Your task to perform on an android device: Turn on the flashlight Image 0: 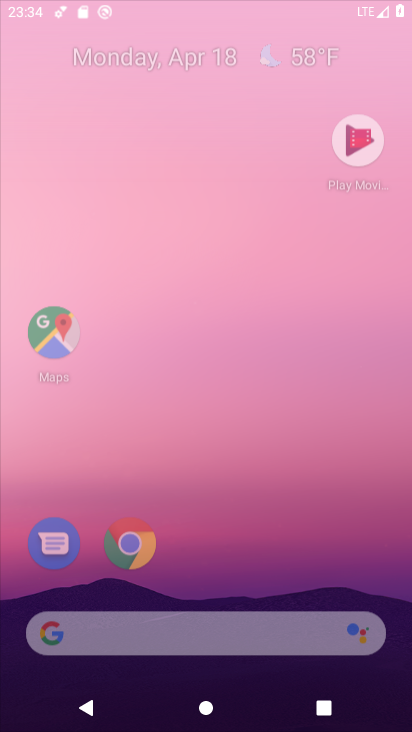
Step 0: drag from (240, 88) to (303, 1)
Your task to perform on an android device: Turn on the flashlight Image 1: 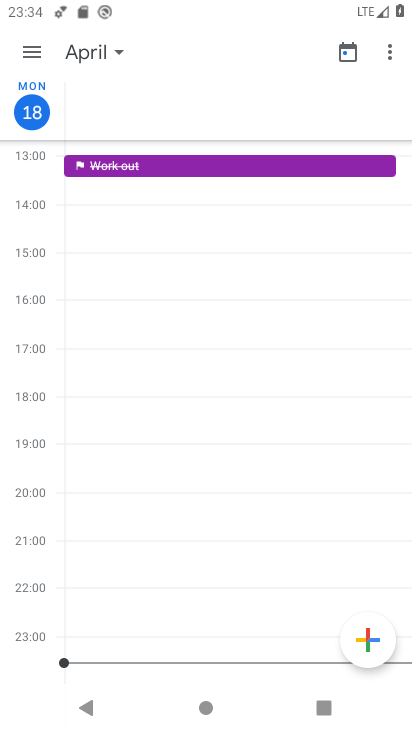
Step 1: press home button
Your task to perform on an android device: Turn on the flashlight Image 2: 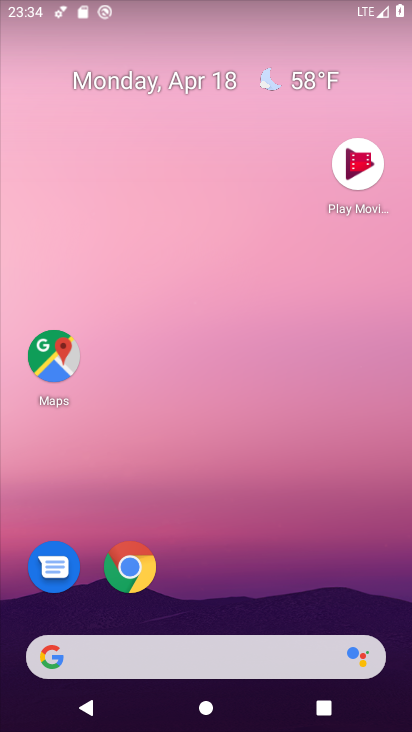
Step 2: drag from (205, 599) to (238, 133)
Your task to perform on an android device: Turn on the flashlight Image 3: 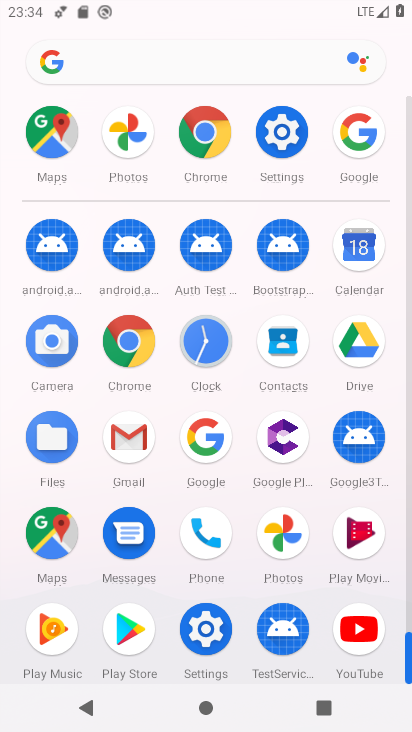
Step 3: click (280, 130)
Your task to perform on an android device: Turn on the flashlight Image 4: 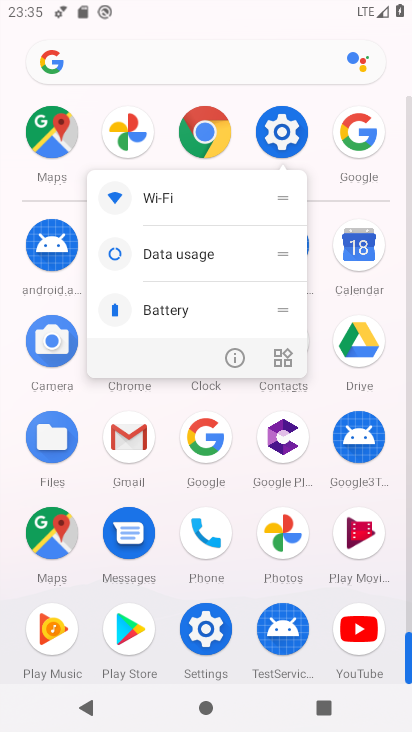
Step 4: click (233, 351)
Your task to perform on an android device: Turn on the flashlight Image 5: 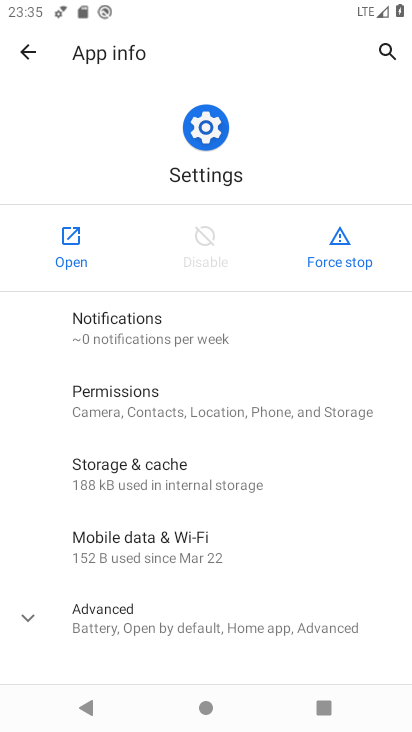
Step 5: click (69, 243)
Your task to perform on an android device: Turn on the flashlight Image 6: 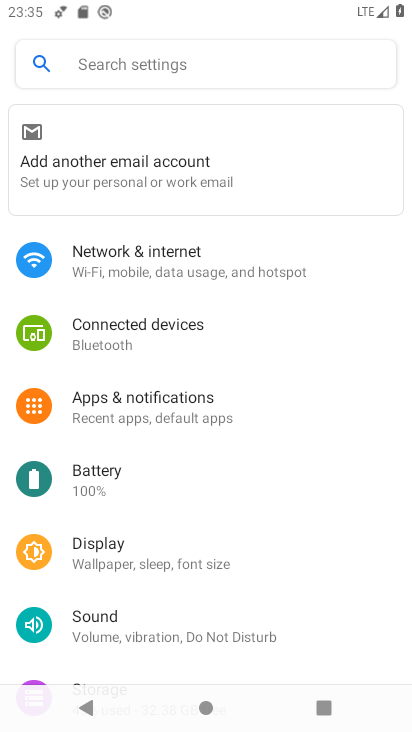
Step 6: click (195, 70)
Your task to perform on an android device: Turn on the flashlight Image 7: 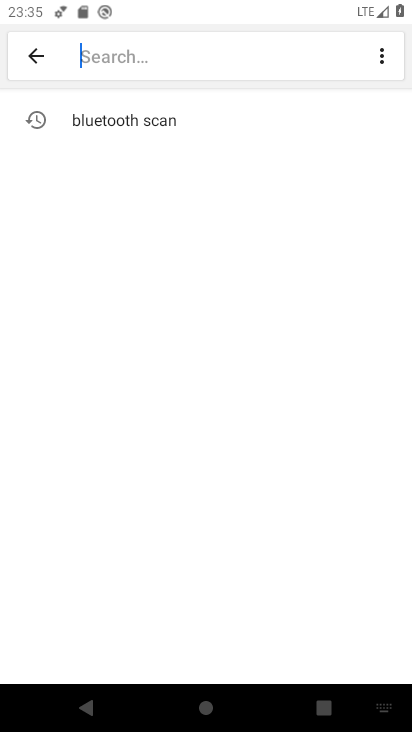
Step 7: type "flashlight"
Your task to perform on an android device: Turn on the flashlight Image 8: 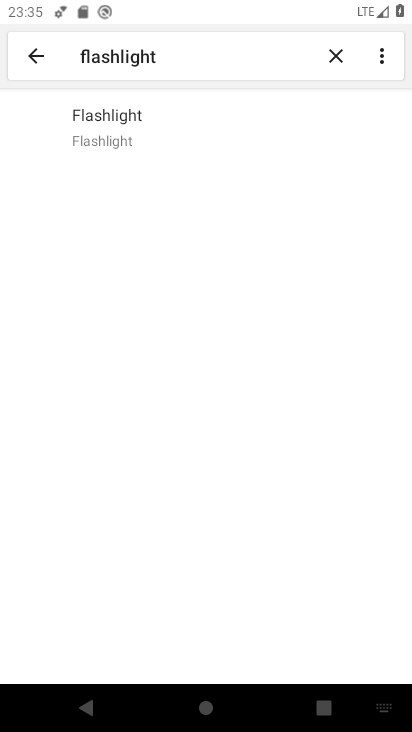
Step 8: click (194, 118)
Your task to perform on an android device: Turn on the flashlight Image 9: 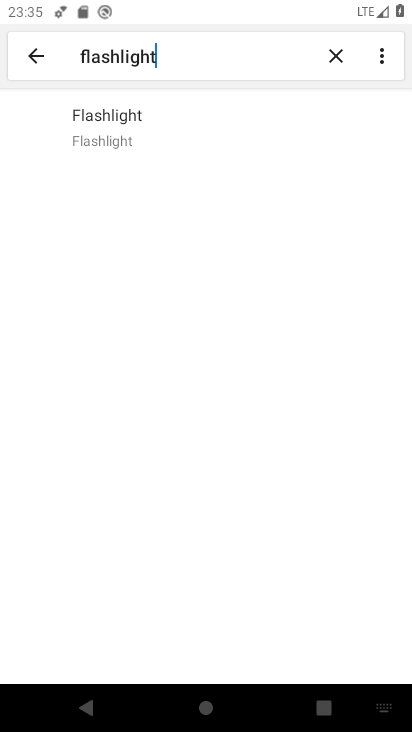
Step 9: click (154, 132)
Your task to perform on an android device: Turn on the flashlight Image 10: 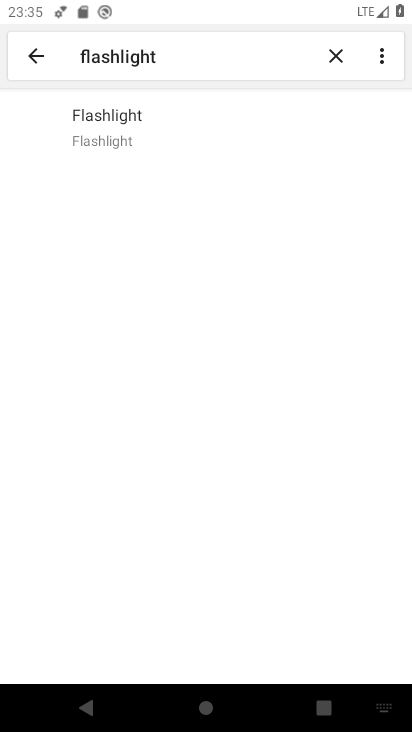
Step 10: click (154, 132)
Your task to perform on an android device: Turn on the flashlight Image 11: 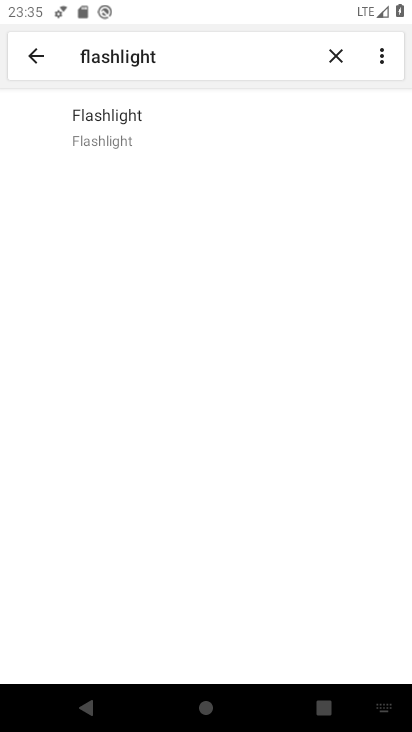
Step 11: click (154, 132)
Your task to perform on an android device: Turn on the flashlight Image 12: 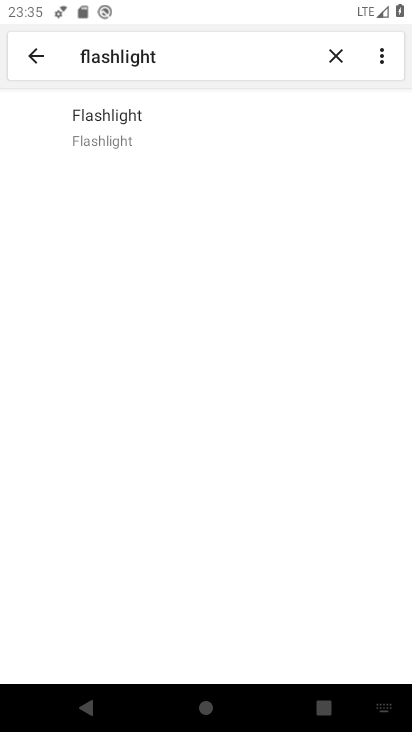
Step 12: click (177, 124)
Your task to perform on an android device: Turn on the flashlight Image 13: 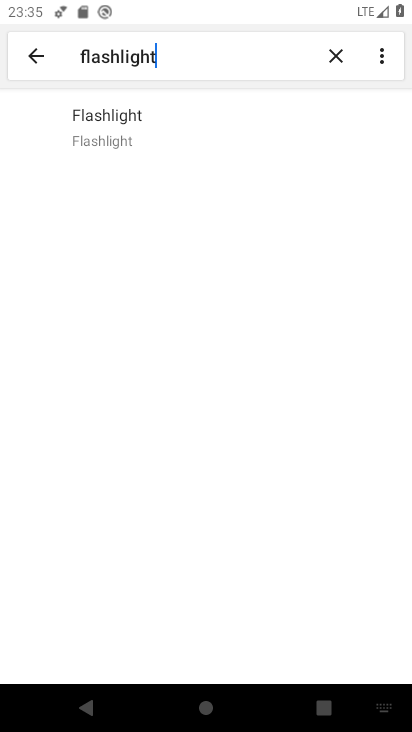
Step 13: task complete